Your task to perform on an android device: clear all cookies in the chrome app Image 0: 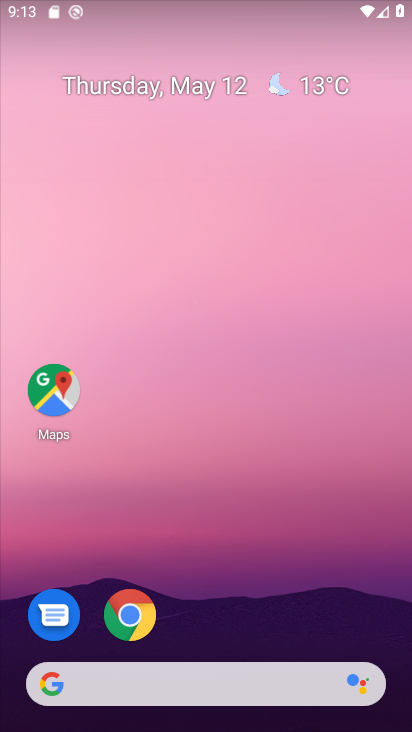
Step 0: click (126, 617)
Your task to perform on an android device: clear all cookies in the chrome app Image 1: 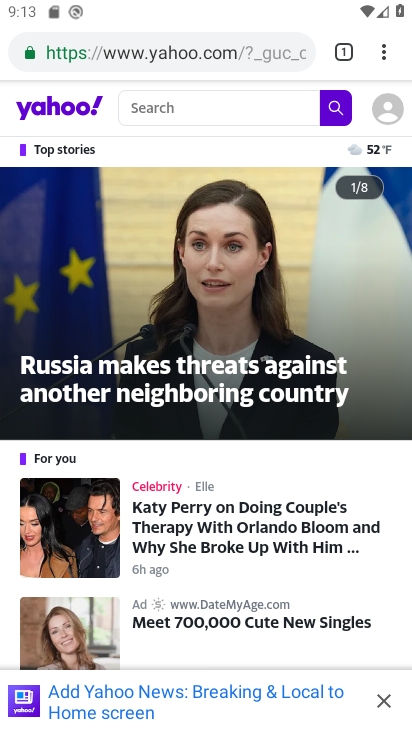
Step 1: click (385, 51)
Your task to perform on an android device: clear all cookies in the chrome app Image 2: 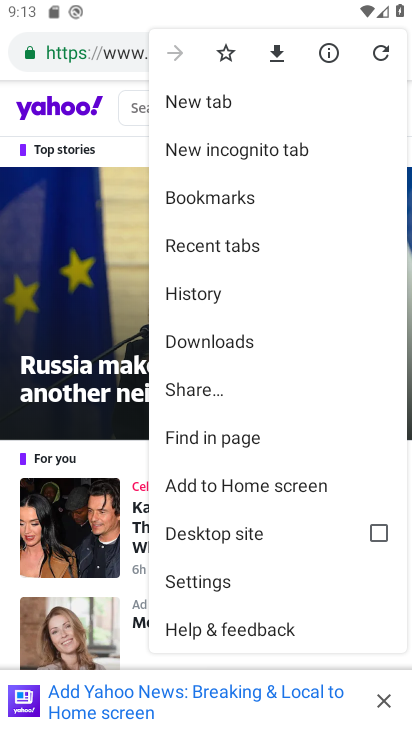
Step 2: drag from (295, 582) to (246, 390)
Your task to perform on an android device: clear all cookies in the chrome app Image 3: 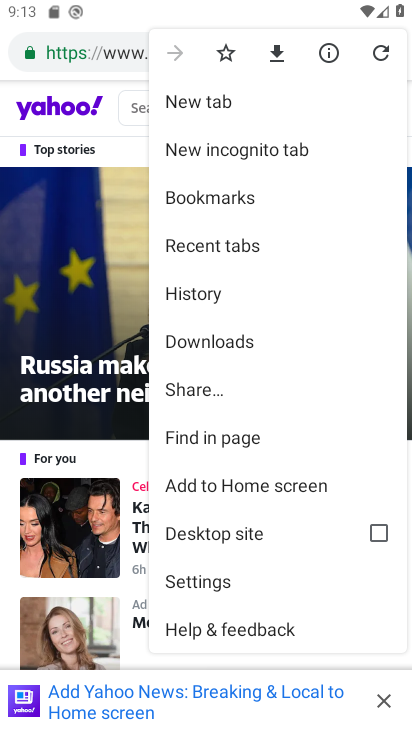
Step 3: click (205, 579)
Your task to perform on an android device: clear all cookies in the chrome app Image 4: 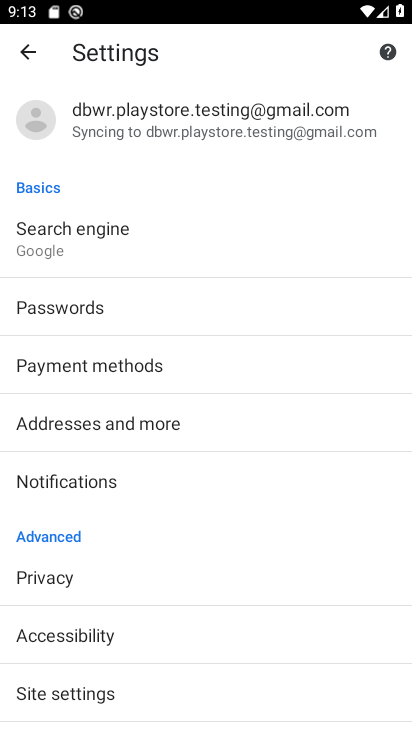
Step 4: drag from (180, 526) to (141, 306)
Your task to perform on an android device: clear all cookies in the chrome app Image 5: 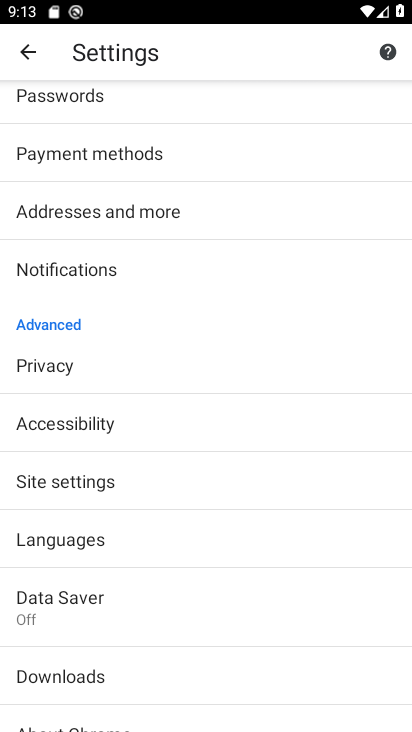
Step 5: click (49, 361)
Your task to perform on an android device: clear all cookies in the chrome app Image 6: 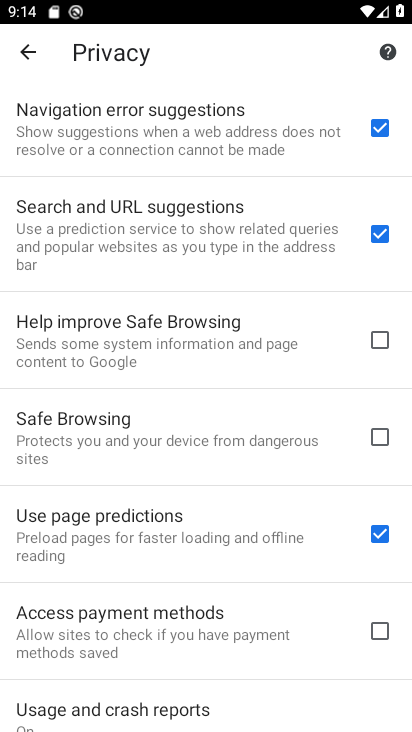
Step 6: drag from (258, 561) to (146, 177)
Your task to perform on an android device: clear all cookies in the chrome app Image 7: 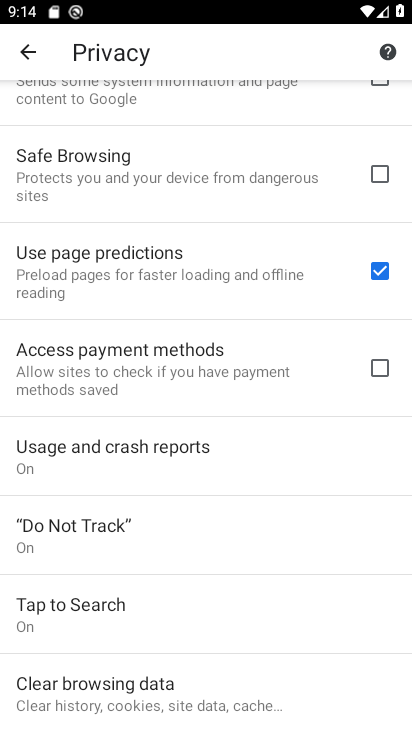
Step 7: click (119, 678)
Your task to perform on an android device: clear all cookies in the chrome app Image 8: 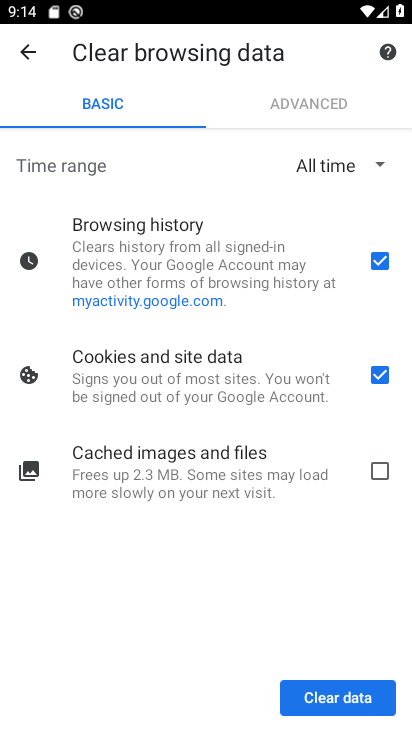
Step 8: click (381, 258)
Your task to perform on an android device: clear all cookies in the chrome app Image 9: 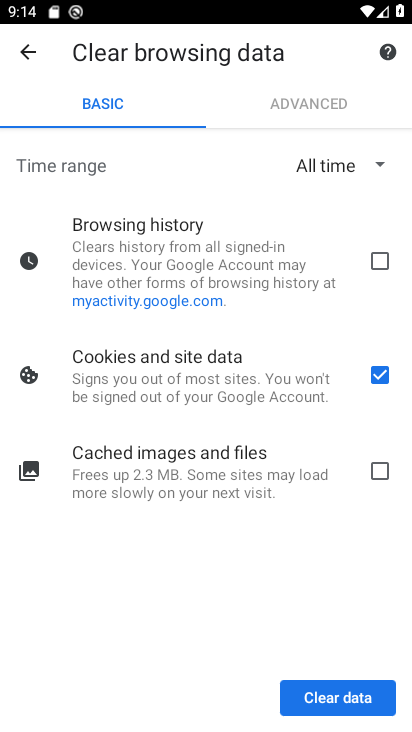
Step 9: click (332, 699)
Your task to perform on an android device: clear all cookies in the chrome app Image 10: 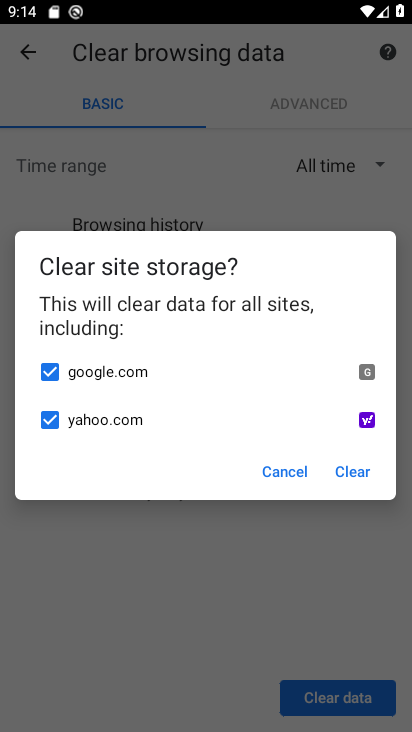
Step 10: click (343, 470)
Your task to perform on an android device: clear all cookies in the chrome app Image 11: 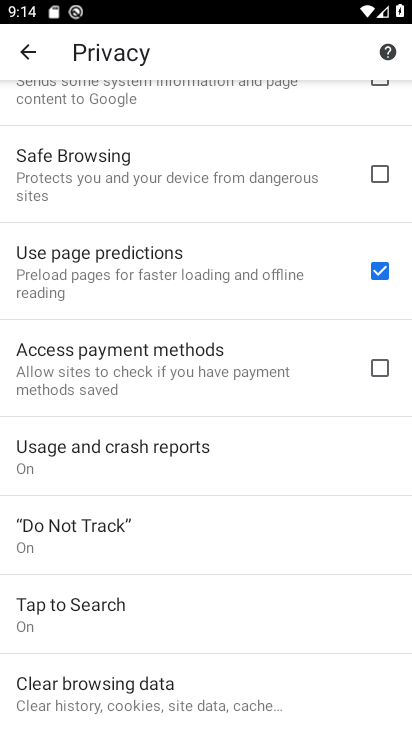
Step 11: task complete